Your task to perform on an android device: make emails show in primary in the gmail app Image 0: 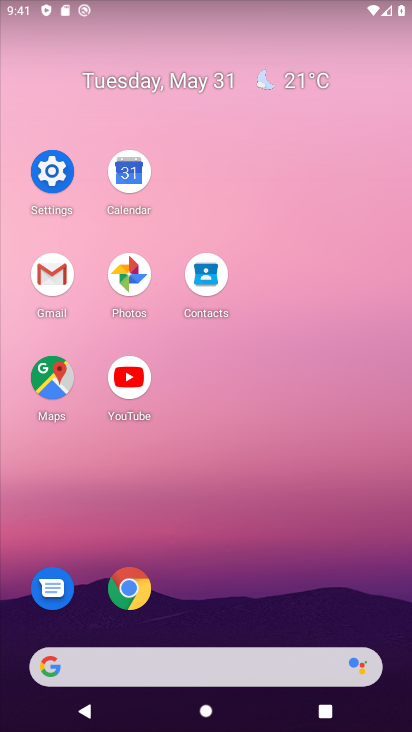
Step 0: click (50, 282)
Your task to perform on an android device: make emails show in primary in the gmail app Image 1: 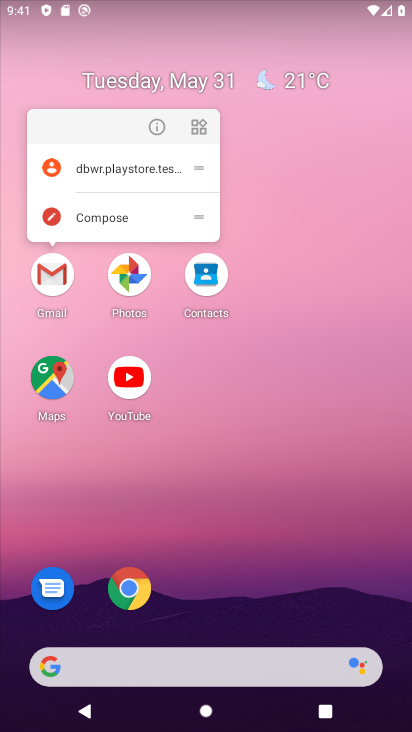
Step 1: click (48, 281)
Your task to perform on an android device: make emails show in primary in the gmail app Image 2: 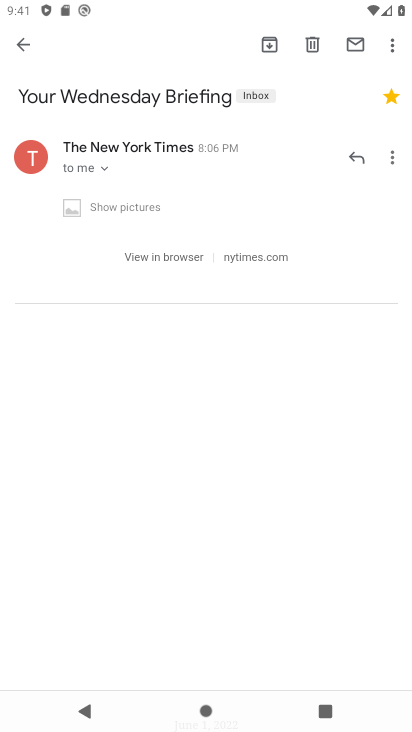
Step 2: click (14, 43)
Your task to perform on an android device: make emails show in primary in the gmail app Image 3: 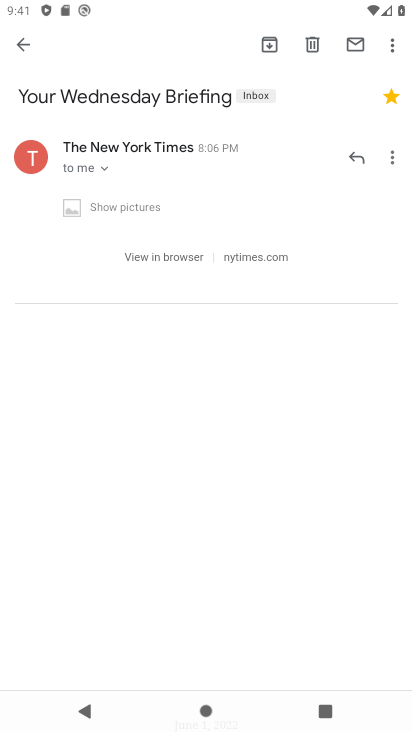
Step 3: click (14, 42)
Your task to perform on an android device: make emails show in primary in the gmail app Image 4: 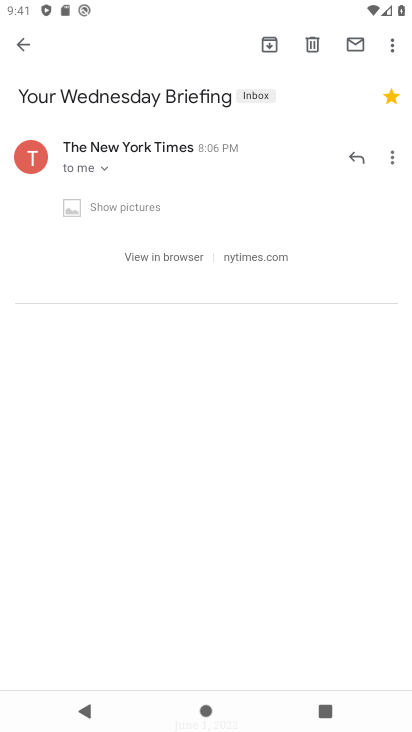
Step 4: click (26, 38)
Your task to perform on an android device: make emails show in primary in the gmail app Image 5: 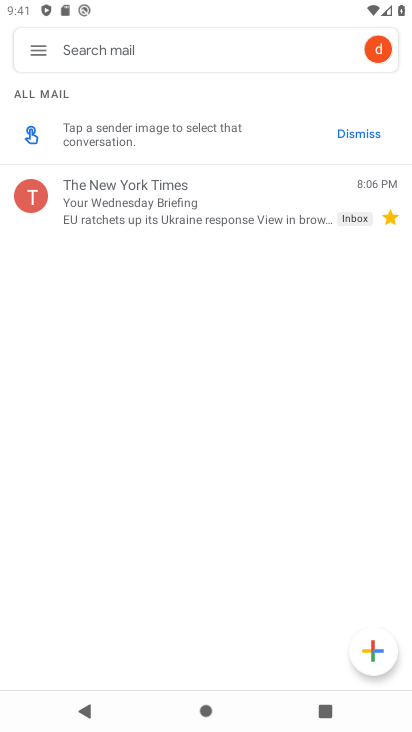
Step 5: click (35, 53)
Your task to perform on an android device: make emails show in primary in the gmail app Image 6: 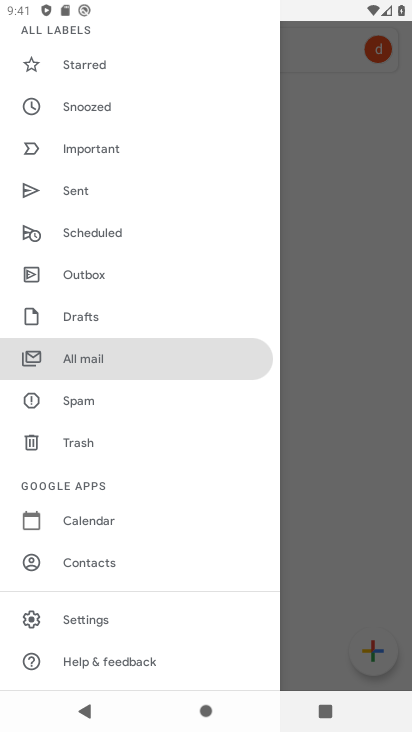
Step 6: click (83, 615)
Your task to perform on an android device: make emails show in primary in the gmail app Image 7: 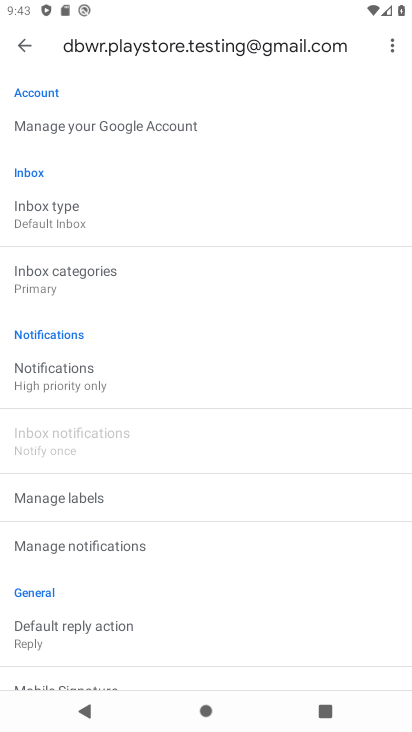
Step 7: task complete